Your task to perform on an android device: Go to battery settings Image 0: 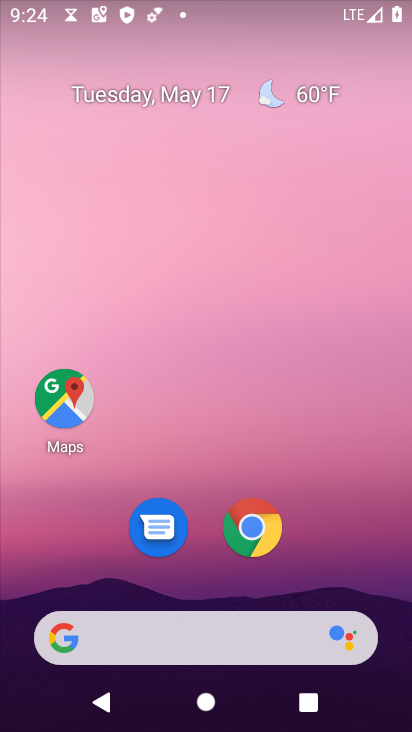
Step 0: press home button
Your task to perform on an android device: Go to battery settings Image 1: 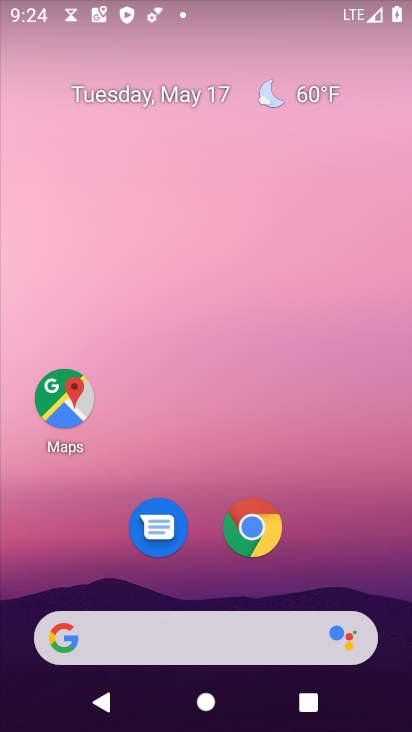
Step 1: drag from (225, 479) to (292, 172)
Your task to perform on an android device: Go to battery settings Image 2: 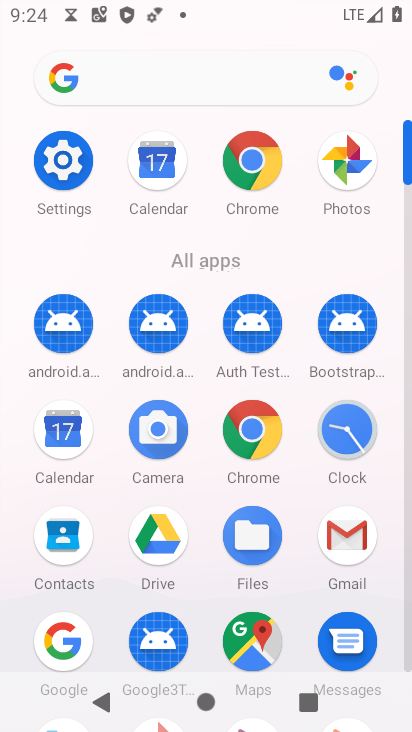
Step 2: click (66, 158)
Your task to perform on an android device: Go to battery settings Image 3: 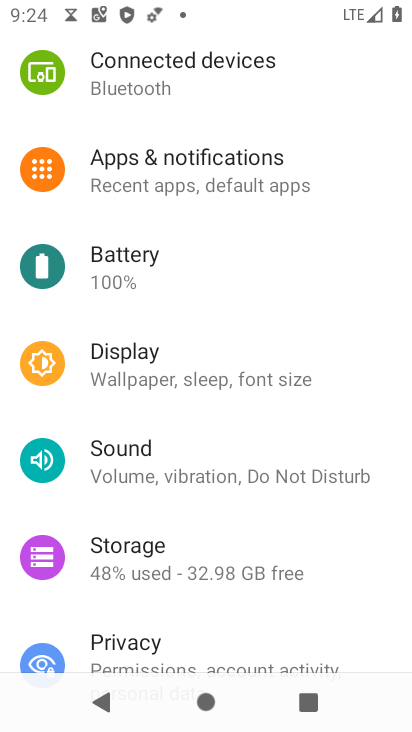
Step 3: drag from (190, 570) to (220, 505)
Your task to perform on an android device: Go to battery settings Image 4: 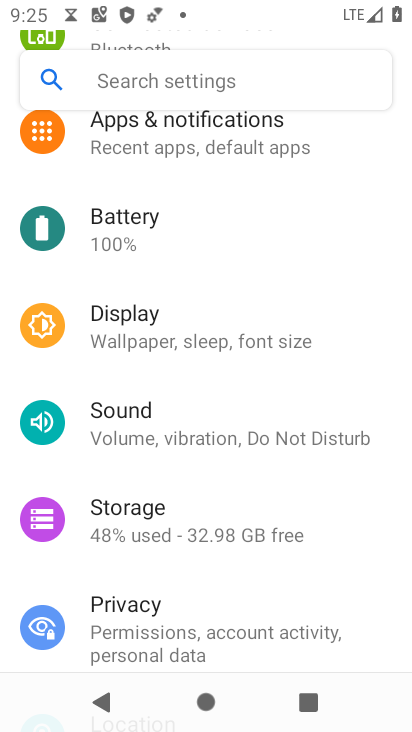
Step 4: click (110, 237)
Your task to perform on an android device: Go to battery settings Image 5: 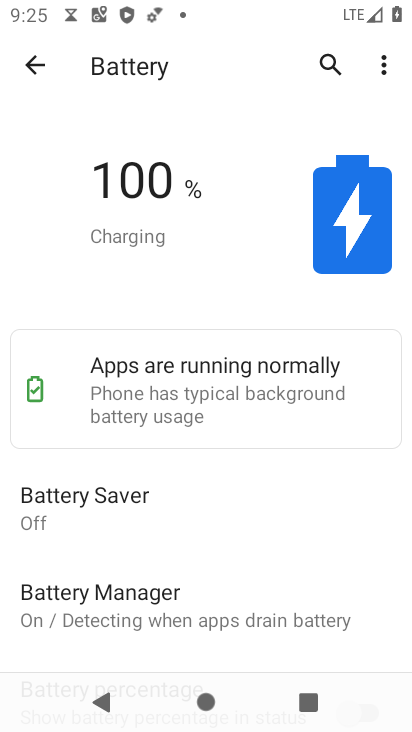
Step 5: task complete